Your task to perform on an android device: open the mobile data screen to see how much data has been used Image 0: 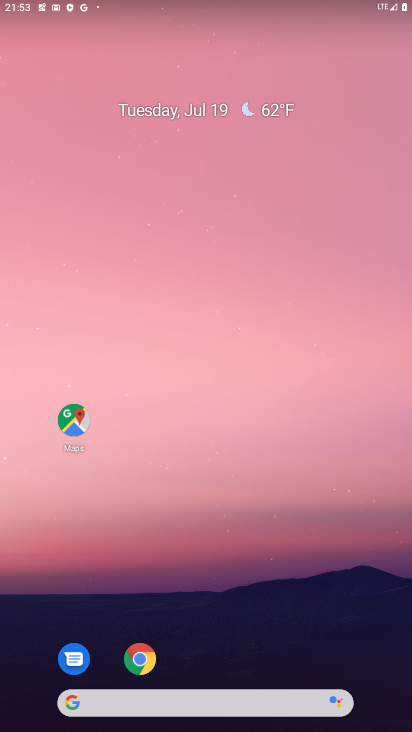
Step 0: drag from (331, 604) to (344, 56)
Your task to perform on an android device: open the mobile data screen to see how much data has been used Image 1: 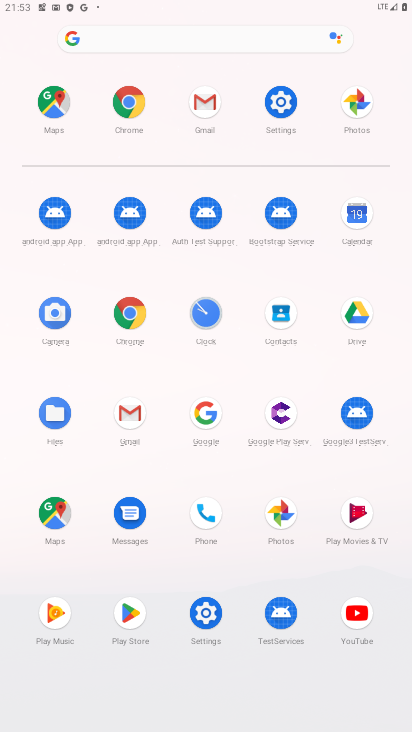
Step 1: drag from (218, 3) to (202, 577)
Your task to perform on an android device: open the mobile data screen to see how much data has been used Image 2: 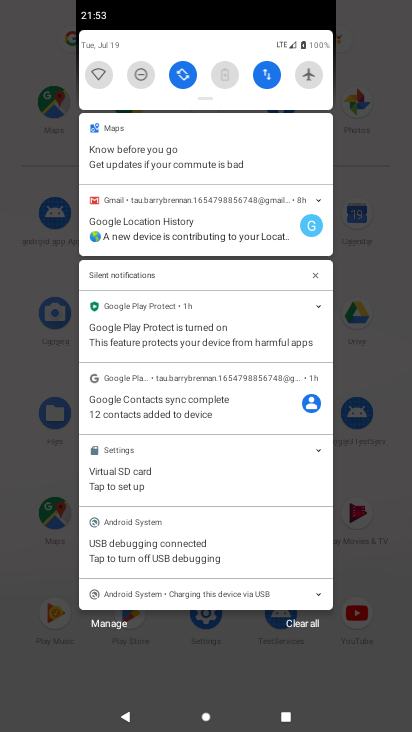
Step 2: click (269, 67)
Your task to perform on an android device: open the mobile data screen to see how much data has been used Image 3: 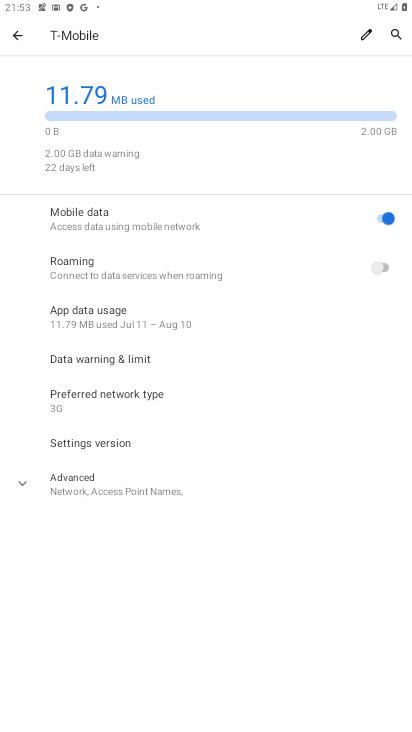
Step 3: task complete